Your task to perform on an android device: Open calendar and show me the first week of next month Image 0: 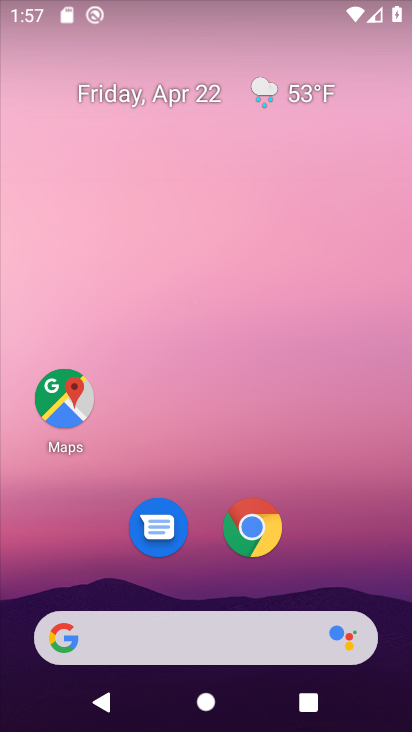
Step 0: drag from (306, 401) to (288, 96)
Your task to perform on an android device: Open calendar and show me the first week of next month Image 1: 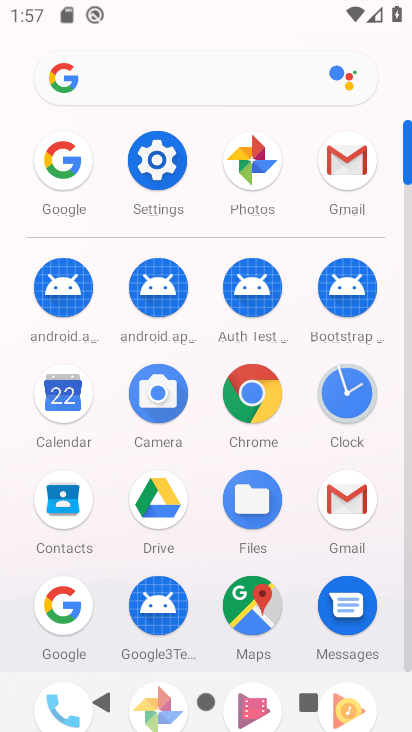
Step 1: click (42, 402)
Your task to perform on an android device: Open calendar and show me the first week of next month Image 2: 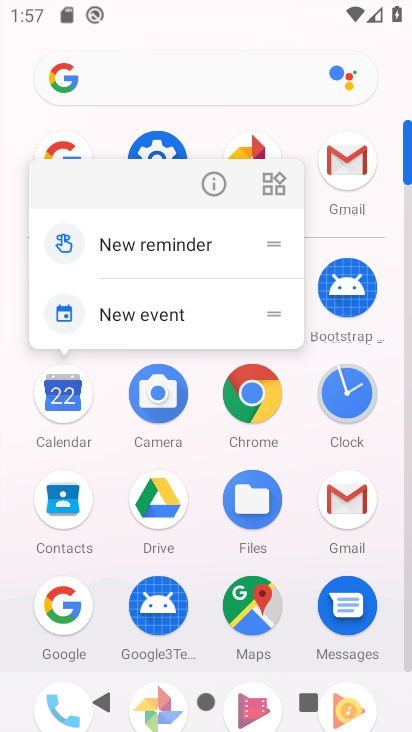
Step 2: click (61, 403)
Your task to perform on an android device: Open calendar and show me the first week of next month Image 3: 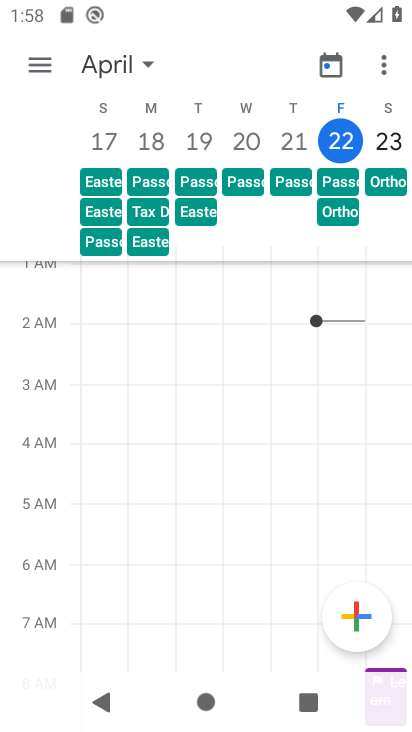
Step 3: click (117, 64)
Your task to perform on an android device: Open calendar and show me the first week of next month Image 4: 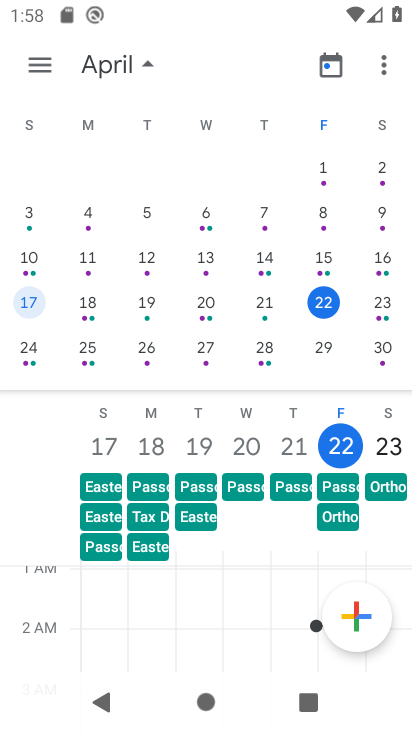
Step 4: drag from (378, 313) to (3, 173)
Your task to perform on an android device: Open calendar and show me the first week of next month Image 5: 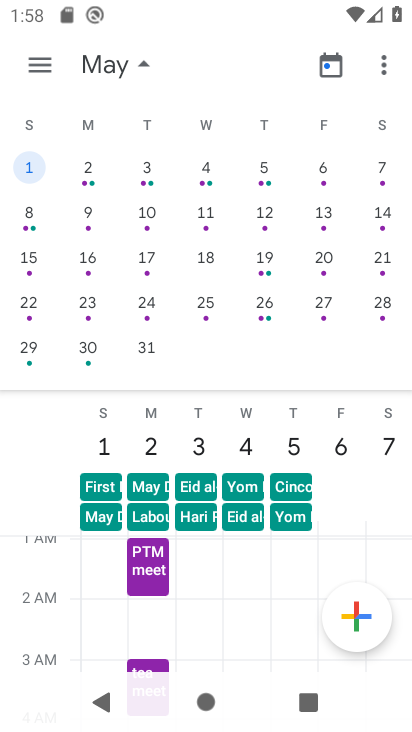
Step 5: drag from (353, 293) to (278, 277)
Your task to perform on an android device: Open calendar and show me the first week of next month Image 6: 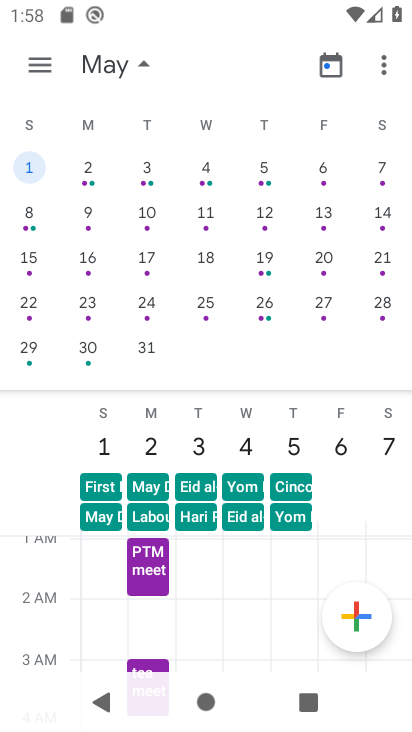
Step 6: click (141, 169)
Your task to perform on an android device: Open calendar and show me the first week of next month Image 7: 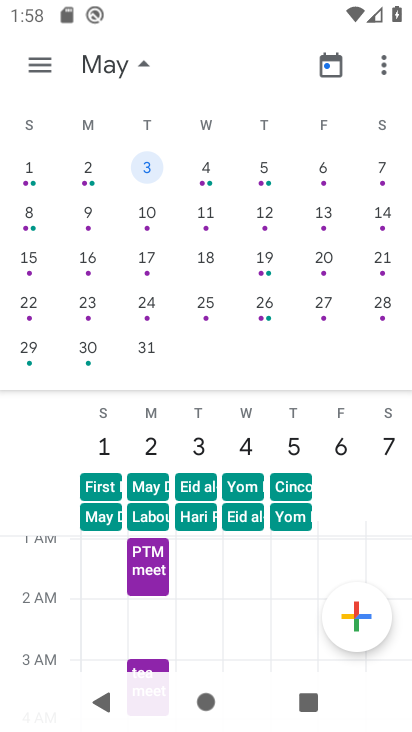
Step 7: task complete